Your task to perform on an android device: Turn on the flashlight Image 0: 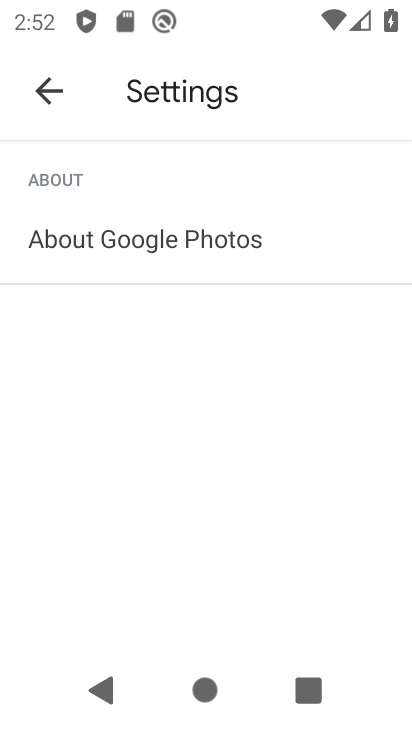
Step 0: click (256, 442)
Your task to perform on an android device: Turn on the flashlight Image 1: 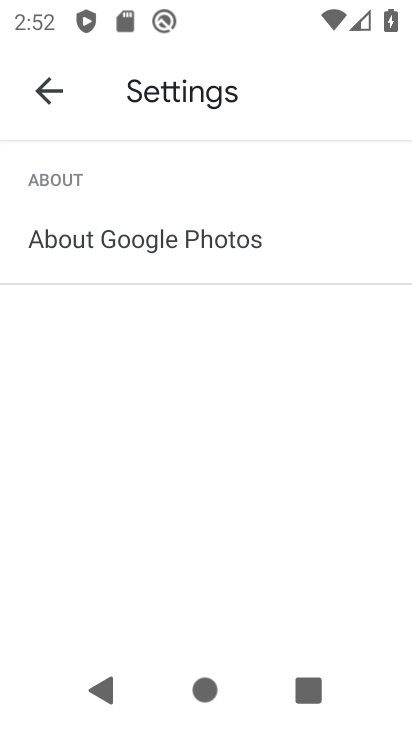
Step 1: press home button
Your task to perform on an android device: Turn on the flashlight Image 2: 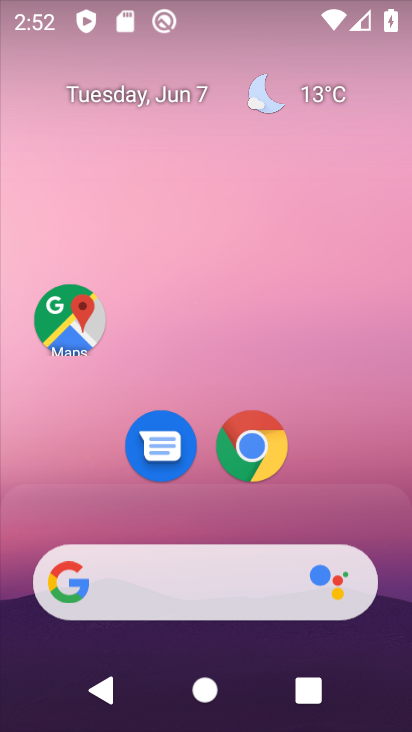
Step 2: drag from (206, 561) to (155, 42)
Your task to perform on an android device: Turn on the flashlight Image 3: 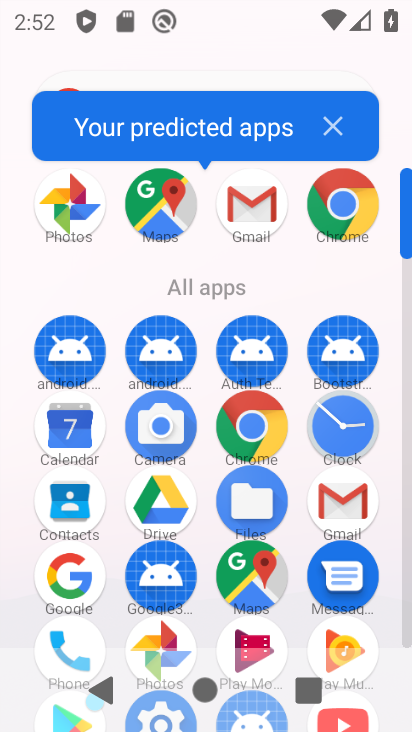
Step 3: drag from (117, 622) to (139, 146)
Your task to perform on an android device: Turn on the flashlight Image 4: 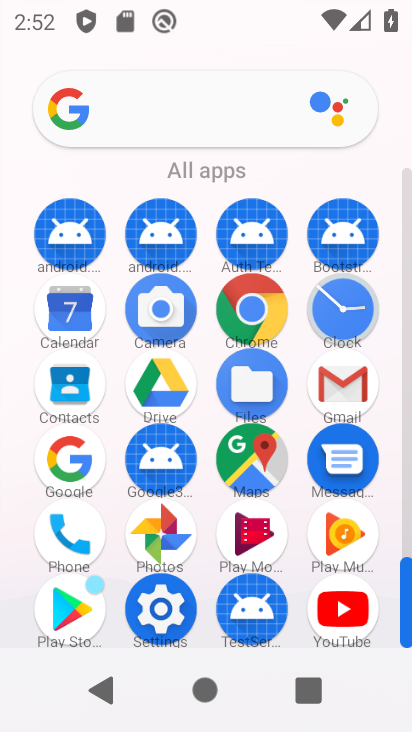
Step 4: click (177, 613)
Your task to perform on an android device: Turn on the flashlight Image 5: 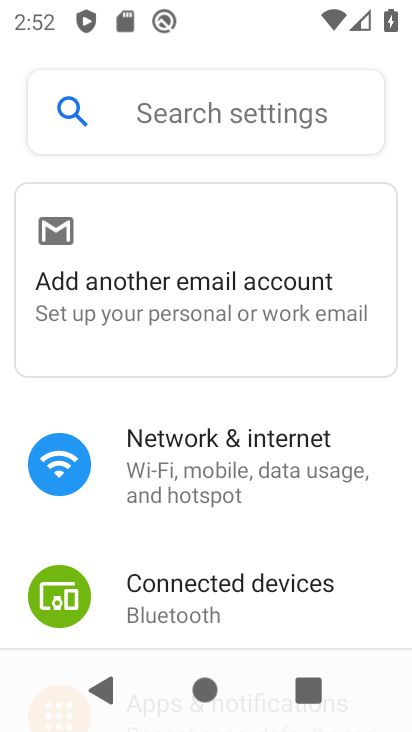
Step 5: task complete